Your task to perform on an android device: Go to network settings Image 0: 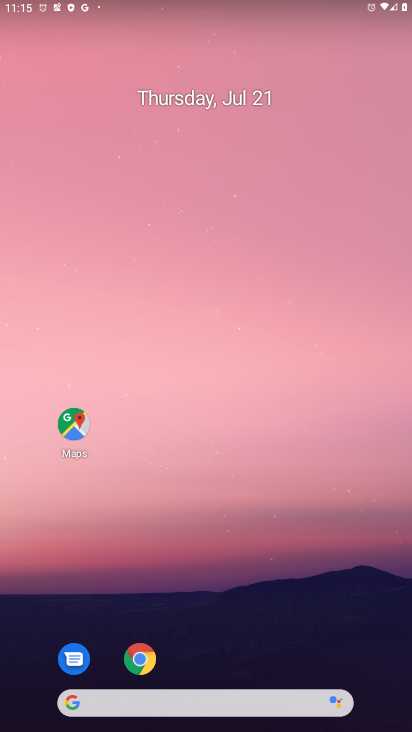
Step 0: drag from (203, 690) to (250, 206)
Your task to perform on an android device: Go to network settings Image 1: 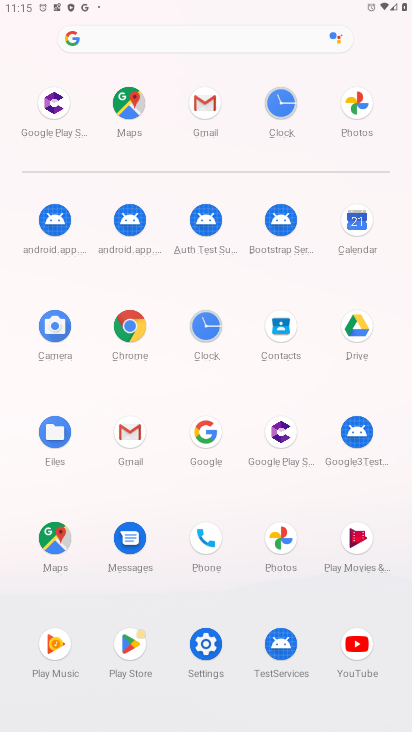
Step 1: click (207, 644)
Your task to perform on an android device: Go to network settings Image 2: 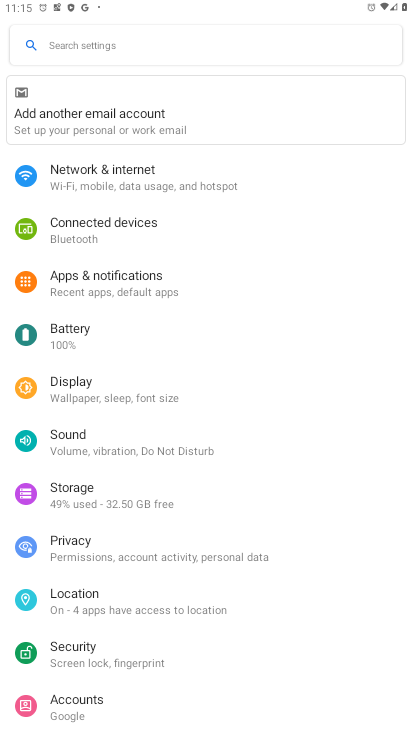
Step 2: click (139, 181)
Your task to perform on an android device: Go to network settings Image 3: 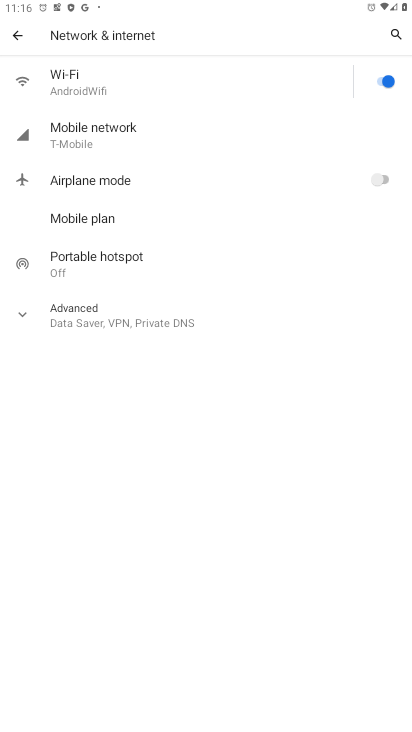
Step 3: click (63, 72)
Your task to perform on an android device: Go to network settings Image 4: 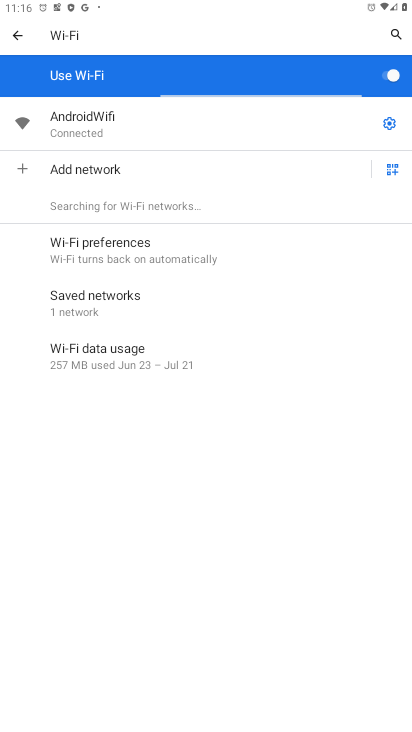
Step 4: task complete